Your task to perform on an android device: Go to battery settings Image 0: 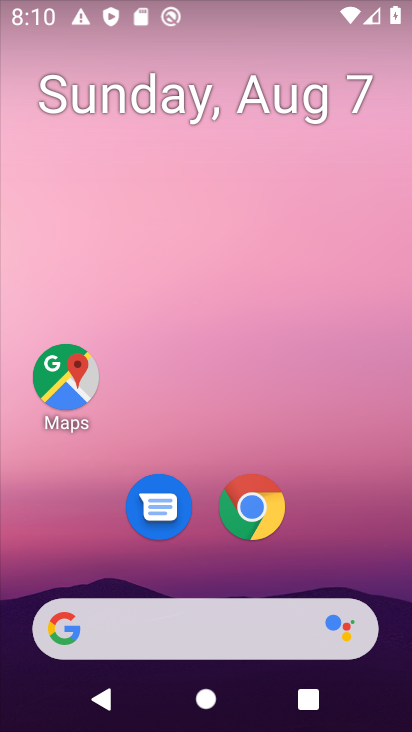
Step 0: drag from (168, 619) to (322, 53)
Your task to perform on an android device: Go to battery settings Image 1: 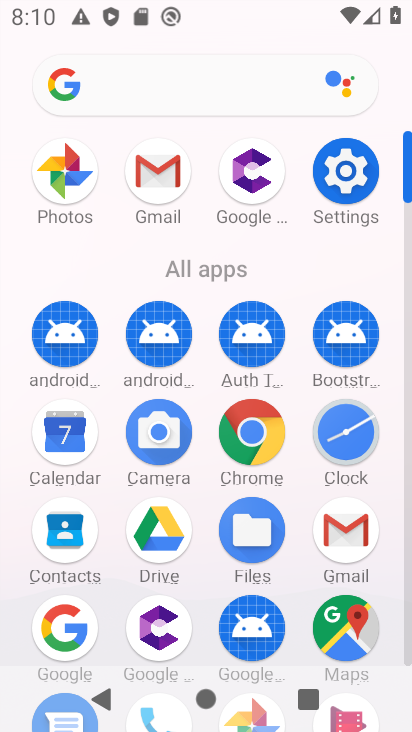
Step 1: click (338, 161)
Your task to perform on an android device: Go to battery settings Image 2: 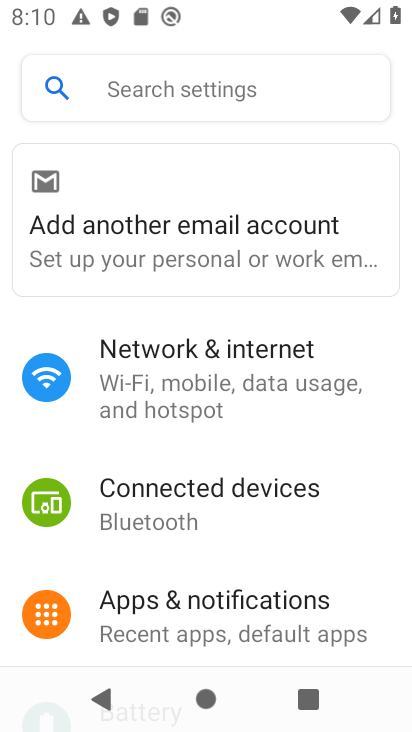
Step 2: drag from (287, 385) to (336, 112)
Your task to perform on an android device: Go to battery settings Image 3: 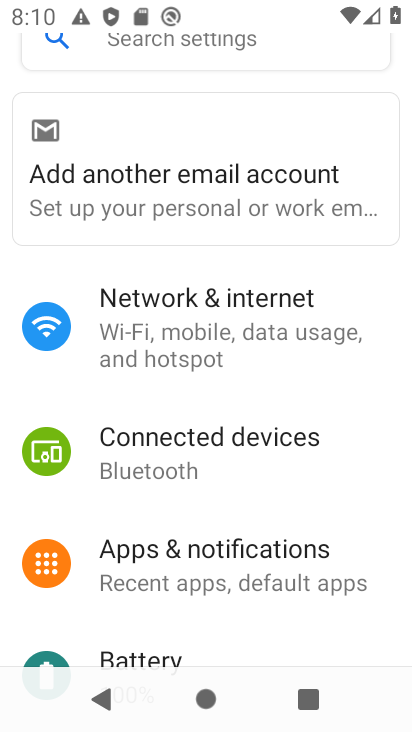
Step 3: drag from (149, 620) to (313, 91)
Your task to perform on an android device: Go to battery settings Image 4: 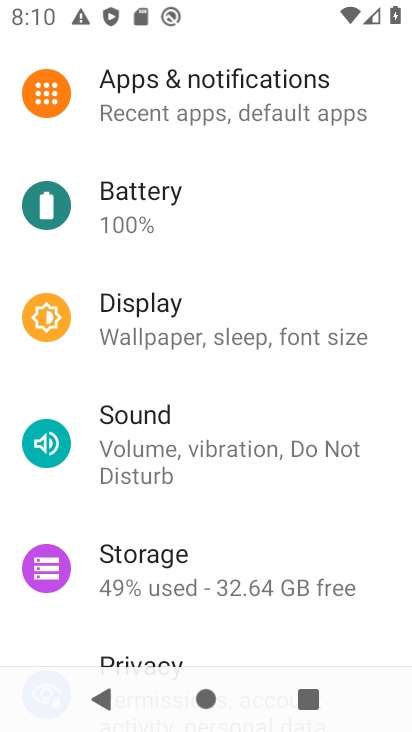
Step 4: click (142, 215)
Your task to perform on an android device: Go to battery settings Image 5: 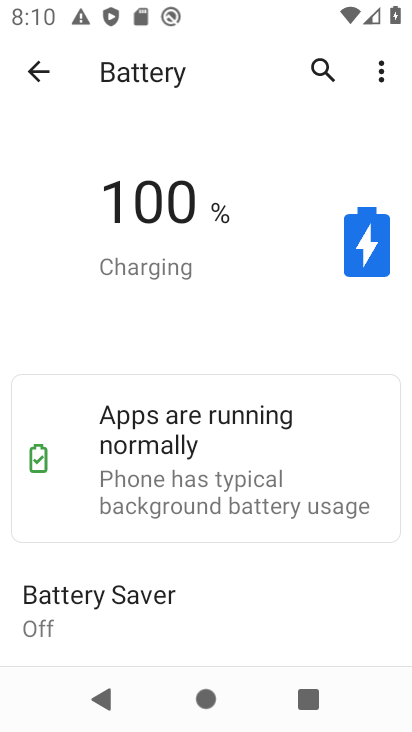
Step 5: task complete